Your task to perform on an android device: clear history in the chrome app Image 0: 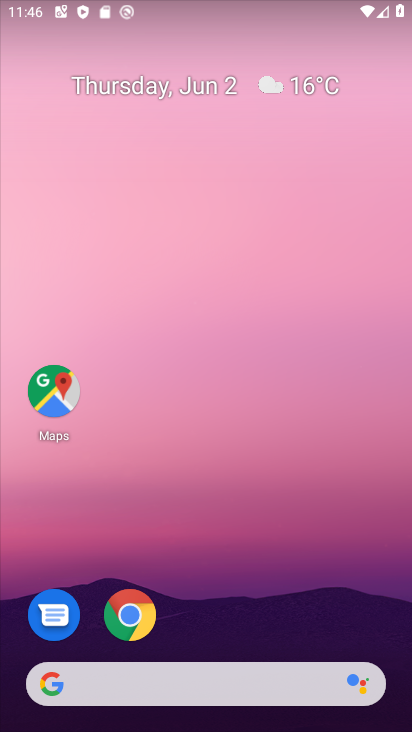
Step 0: click (124, 606)
Your task to perform on an android device: clear history in the chrome app Image 1: 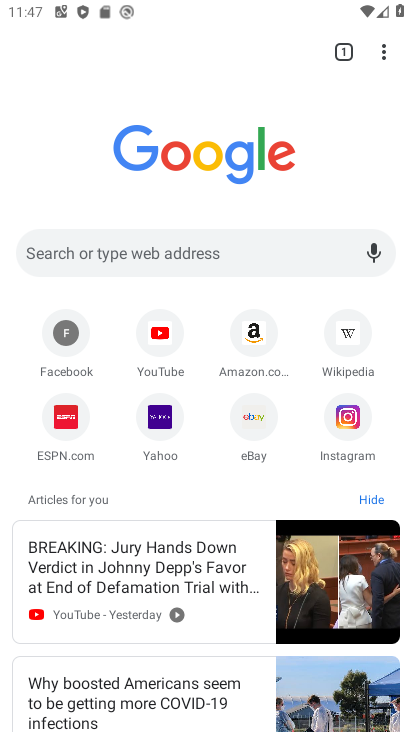
Step 1: click (382, 39)
Your task to perform on an android device: clear history in the chrome app Image 2: 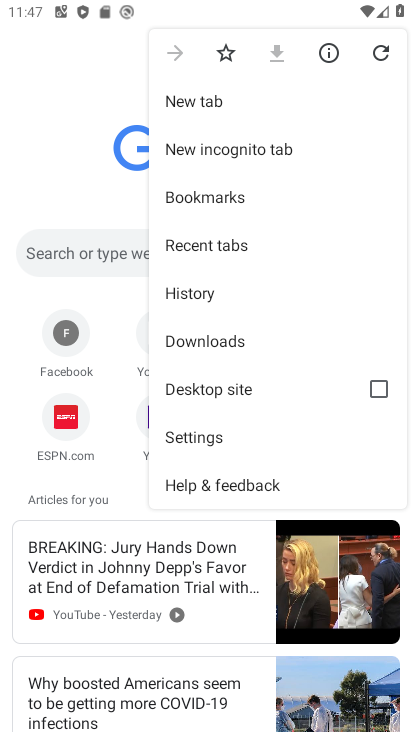
Step 2: click (201, 288)
Your task to perform on an android device: clear history in the chrome app Image 3: 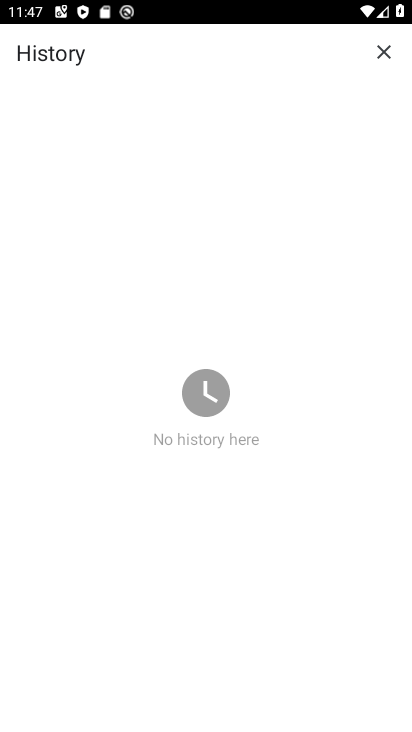
Step 3: task complete